Your task to perform on an android device: delete a single message in the gmail app Image 0: 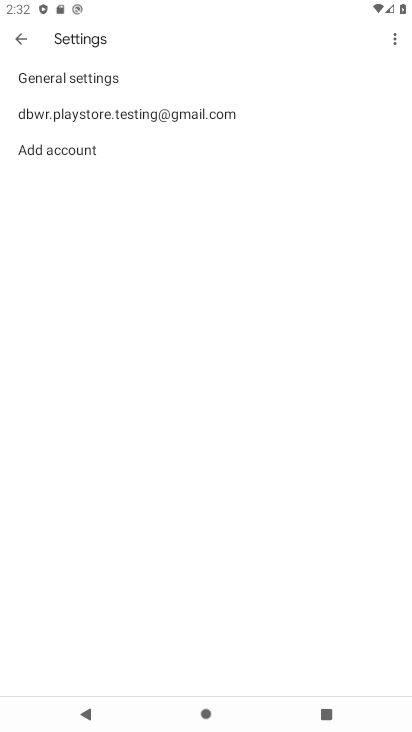
Step 0: press home button
Your task to perform on an android device: delete a single message in the gmail app Image 1: 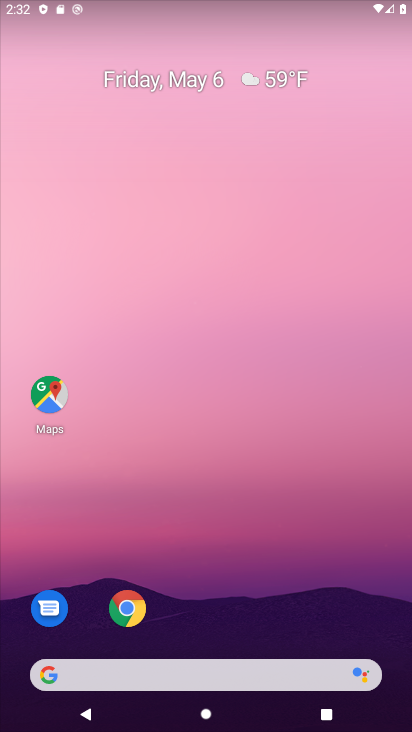
Step 1: drag from (189, 659) to (318, 145)
Your task to perform on an android device: delete a single message in the gmail app Image 2: 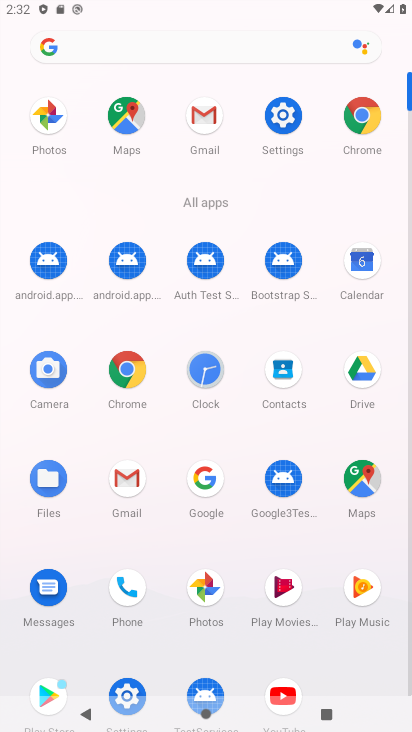
Step 2: click (203, 106)
Your task to perform on an android device: delete a single message in the gmail app Image 3: 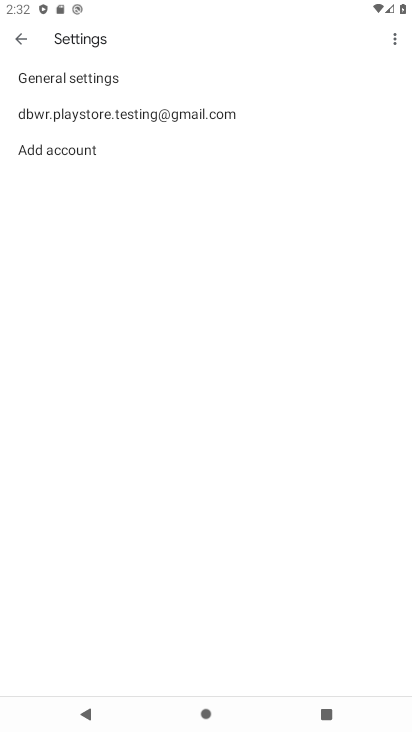
Step 3: click (158, 114)
Your task to perform on an android device: delete a single message in the gmail app Image 4: 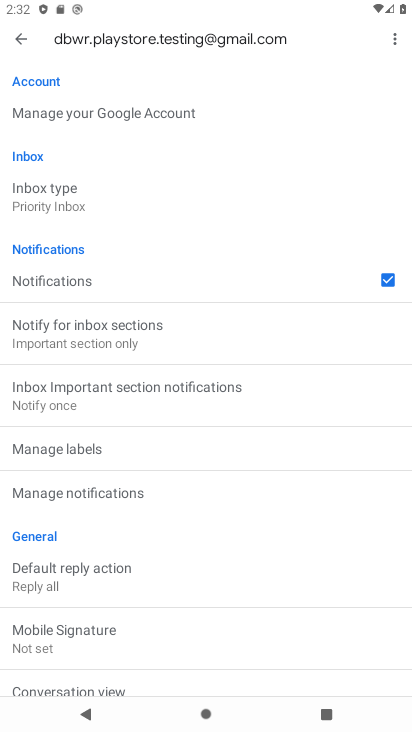
Step 4: click (18, 41)
Your task to perform on an android device: delete a single message in the gmail app Image 5: 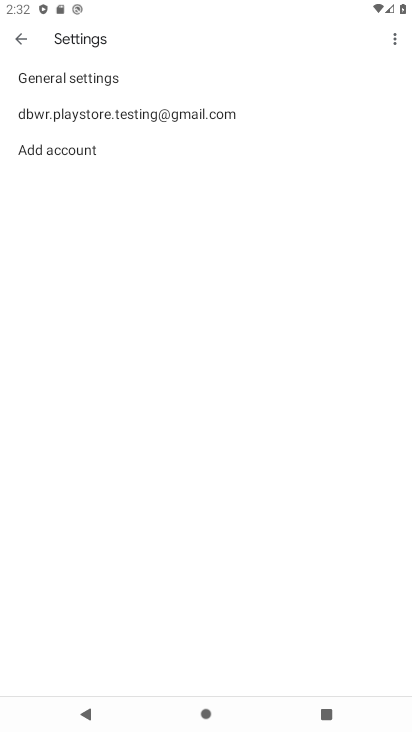
Step 5: click (18, 41)
Your task to perform on an android device: delete a single message in the gmail app Image 6: 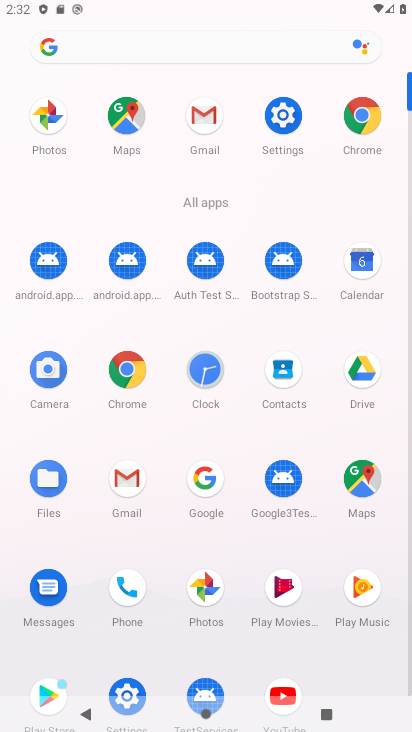
Step 6: click (211, 131)
Your task to perform on an android device: delete a single message in the gmail app Image 7: 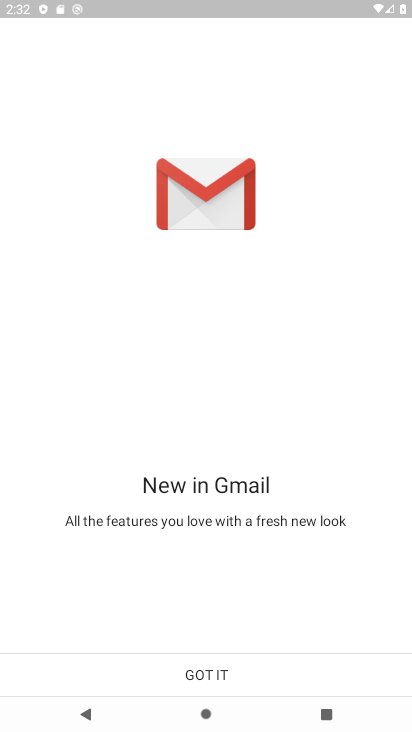
Step 7: click (200, 676)
Your task to perform on an android device: delete a single message in the gmail app Image 8: 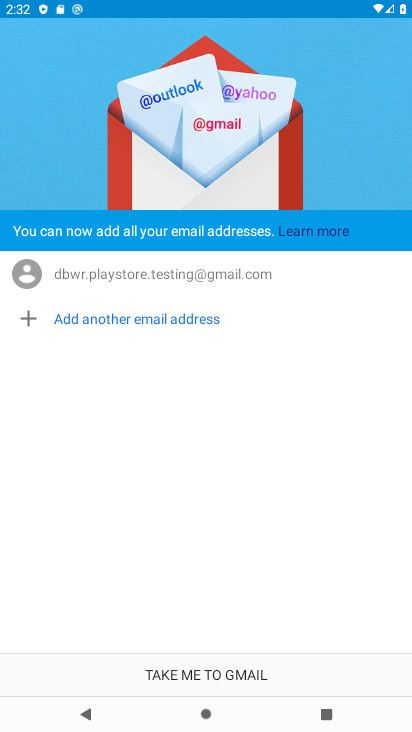
Step 8: click (200, 676)
Your task to perform on an android device: delete a single message in the gmail app Image 9: 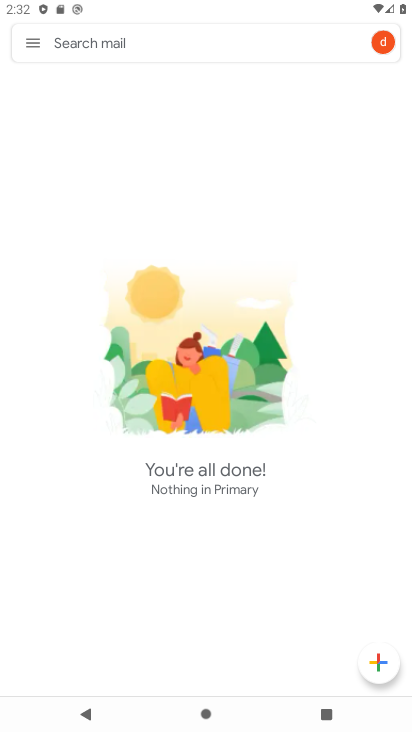
Step 9: task complete